Your task to perform on an android device: turn off sleep mode Image 0: 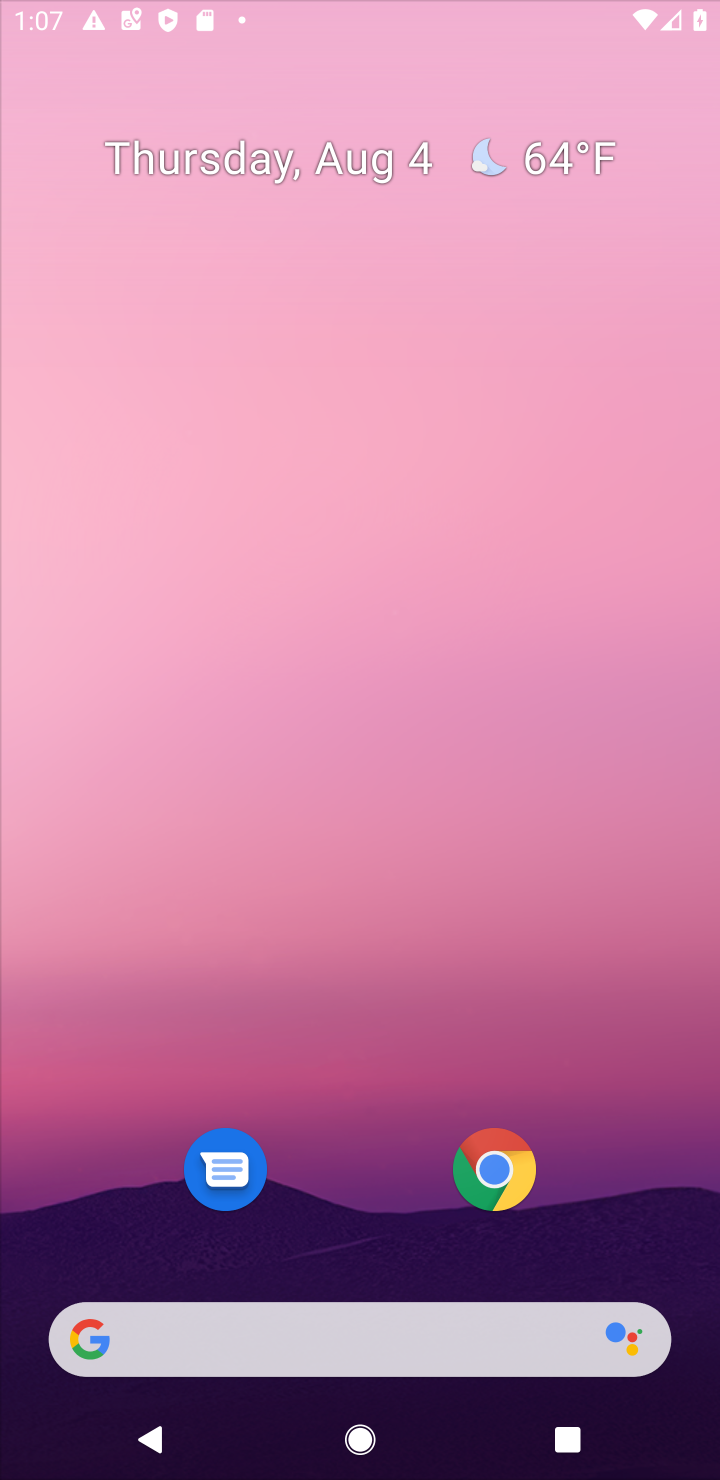
Step 0: press home button
Your task to perform on an android device: turn off sleep mode Image 1: 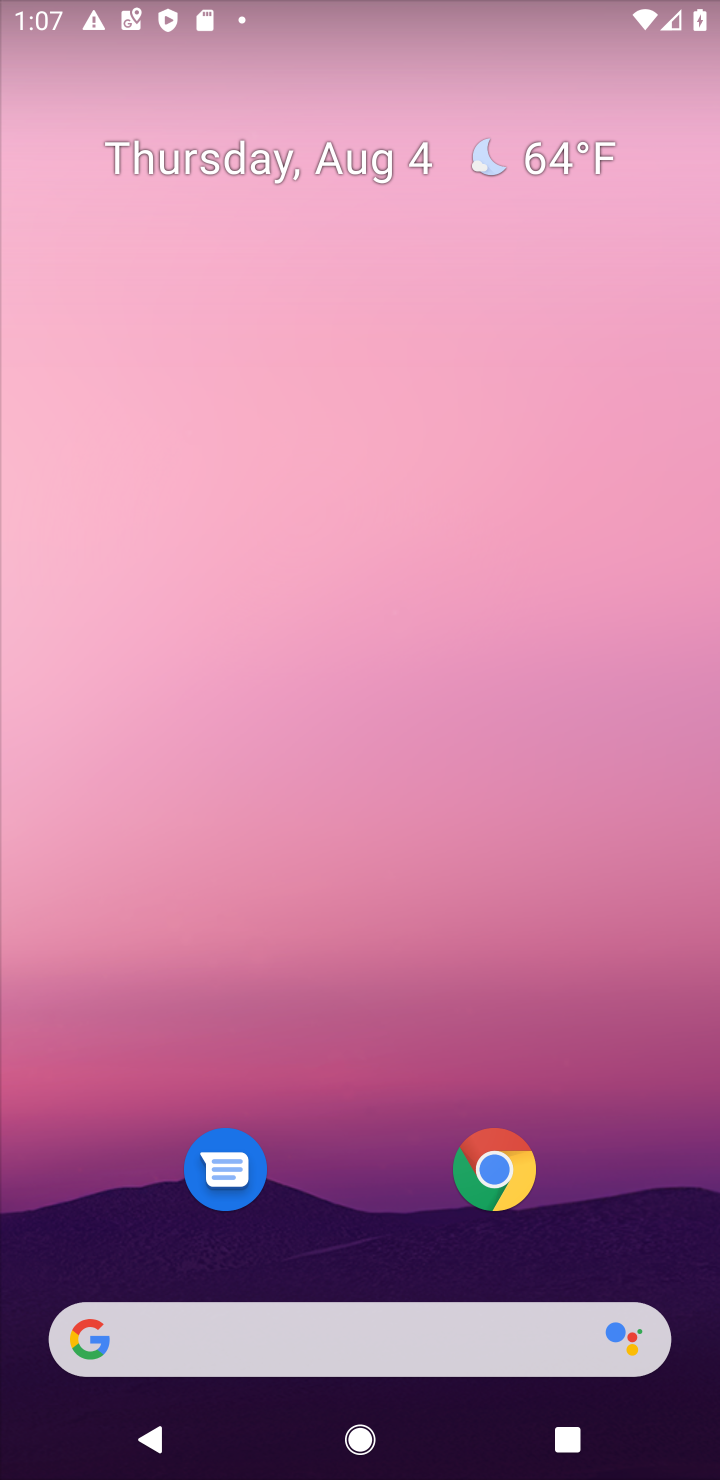
Step 1: drag from (289, 1217) to (291, 15)
Your task to perform on an android device: turn off sleep mode Image 2: 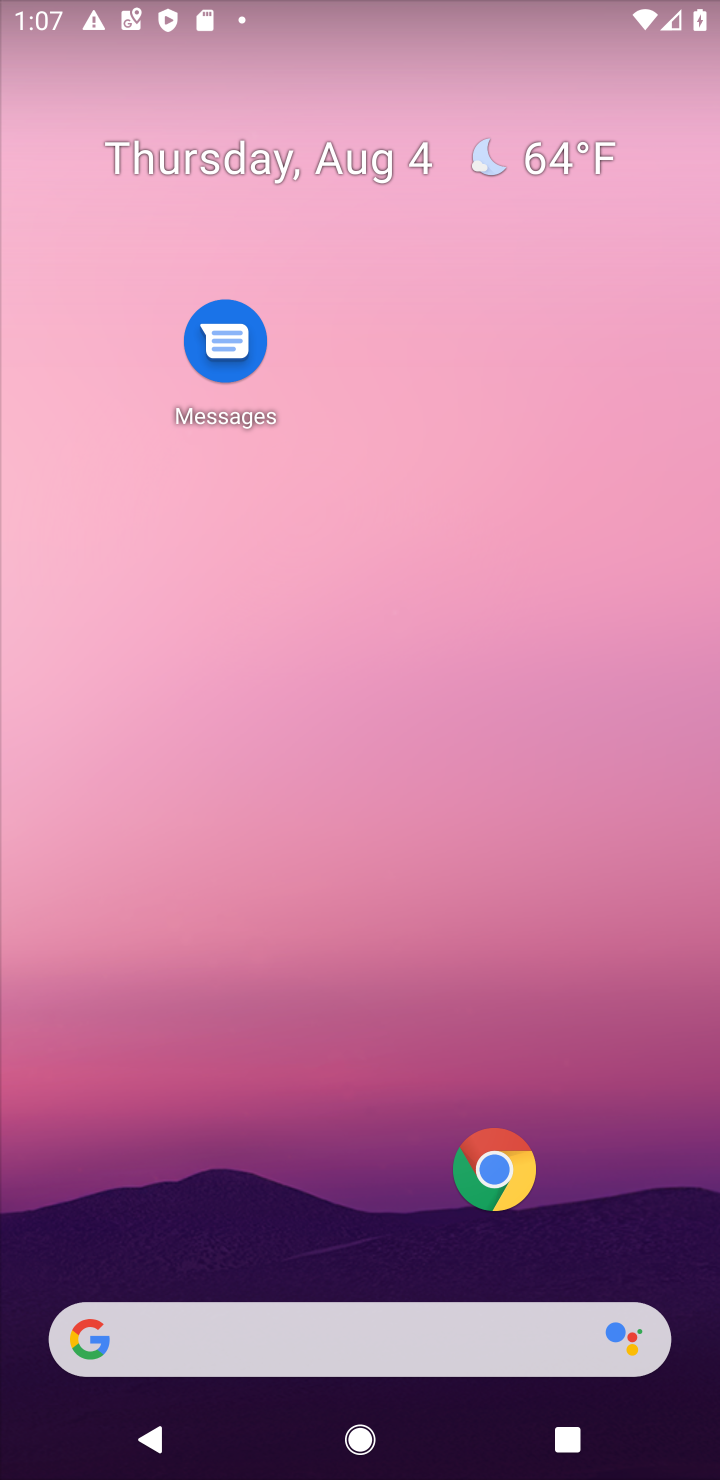
Step 2: drag from (348, 1166) to (337, 219)
Your task to perform on an android device: turn off sleep mode Image 3: 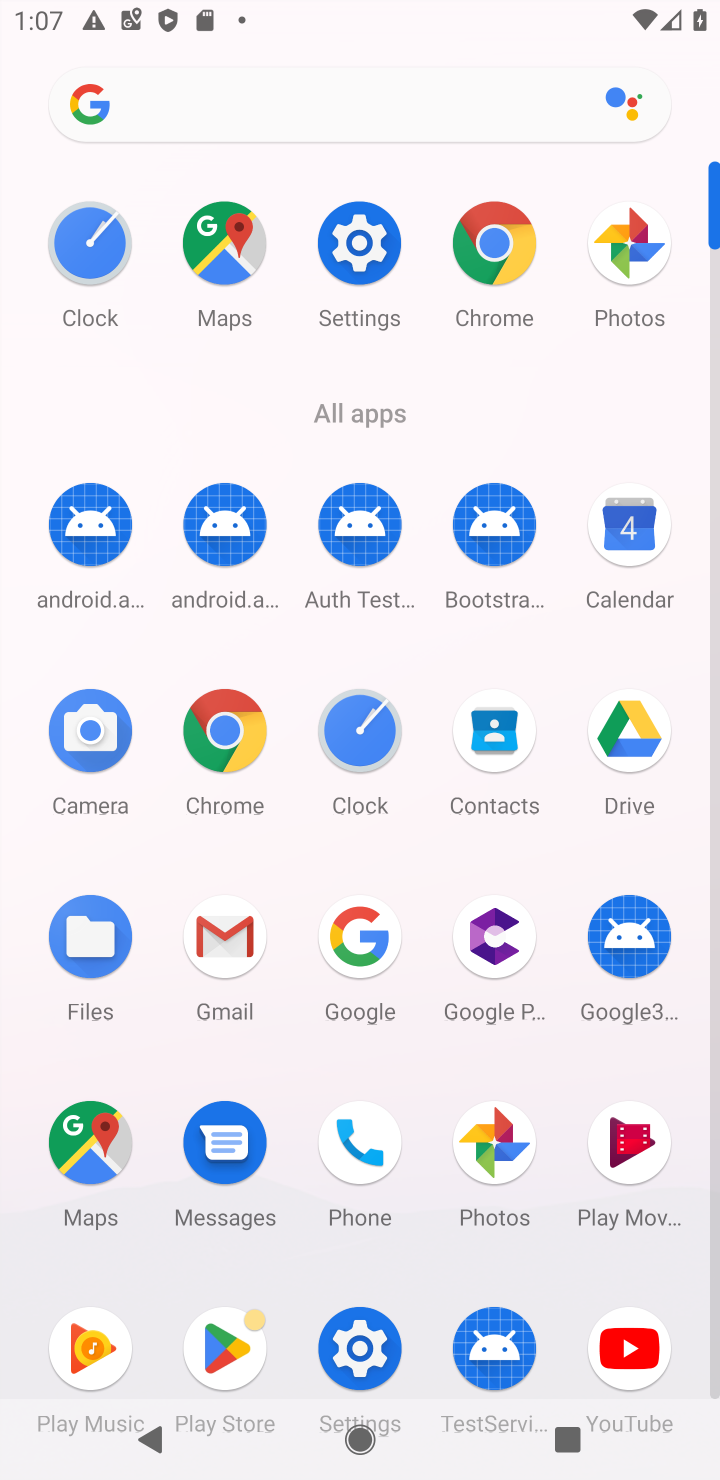
Step 3: click (351, 1348)
Your task to perform on an android device: turn off sleep mode Image 4: 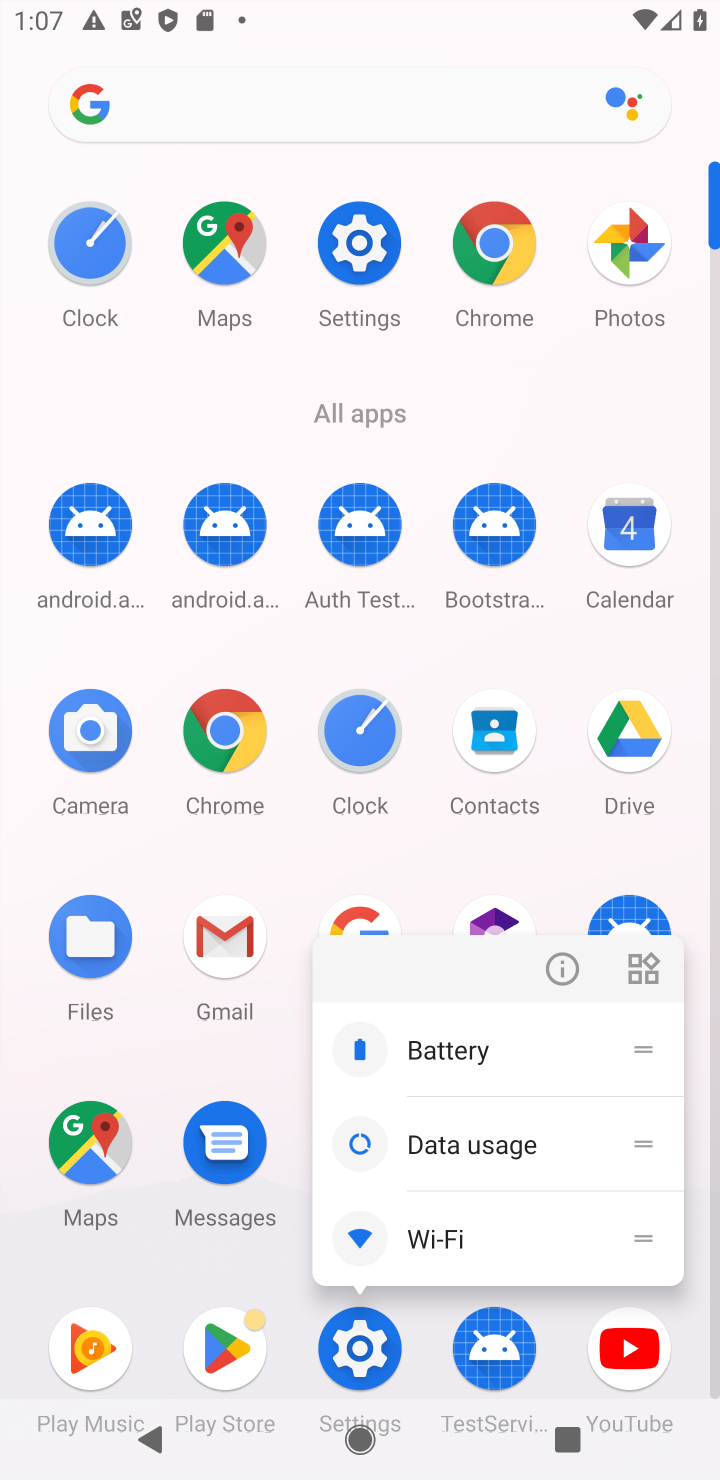
Step 4: click (363, 1353)
Your task to perform on an android device: turn off sleep mode Image 5: 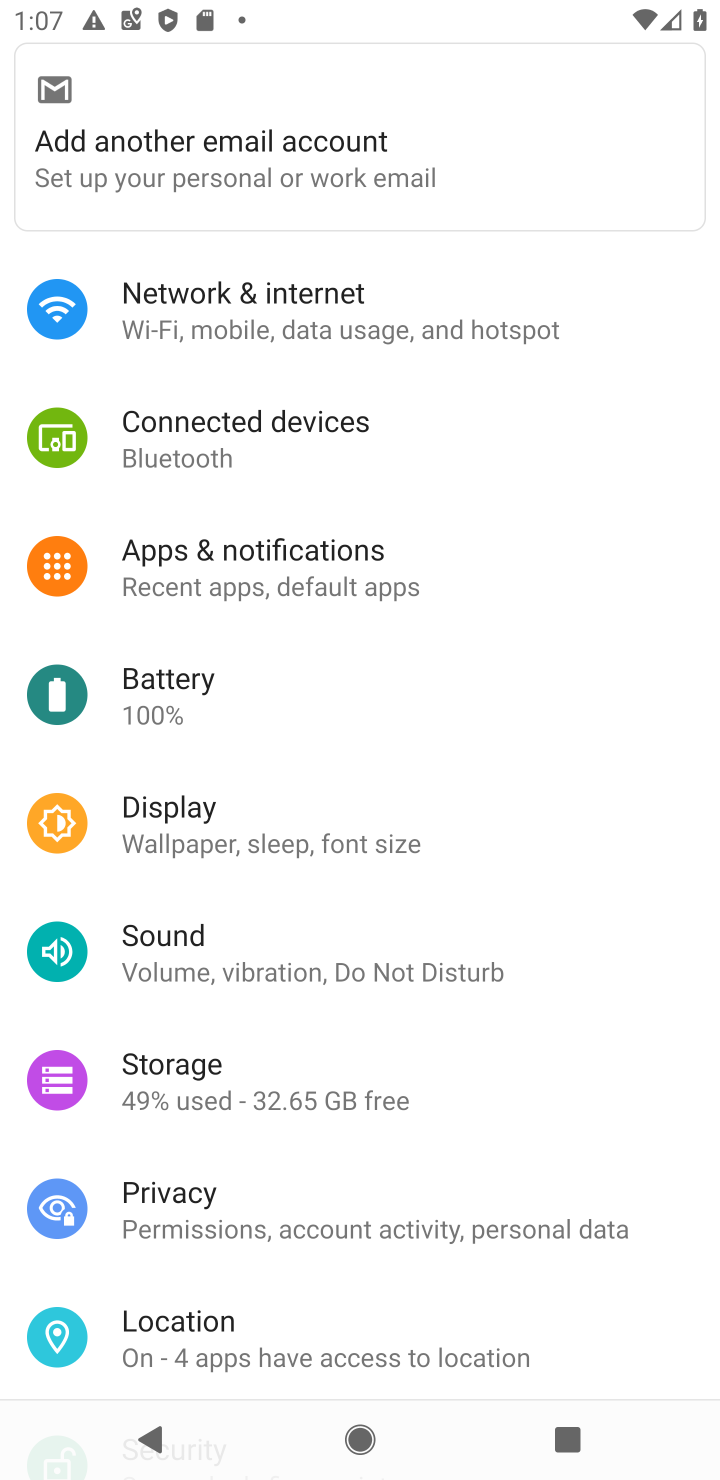
Step 5: drag from (266, 470) to (265, 1051)
Your task to perform on an android device: turn off sleep mode Image 6: 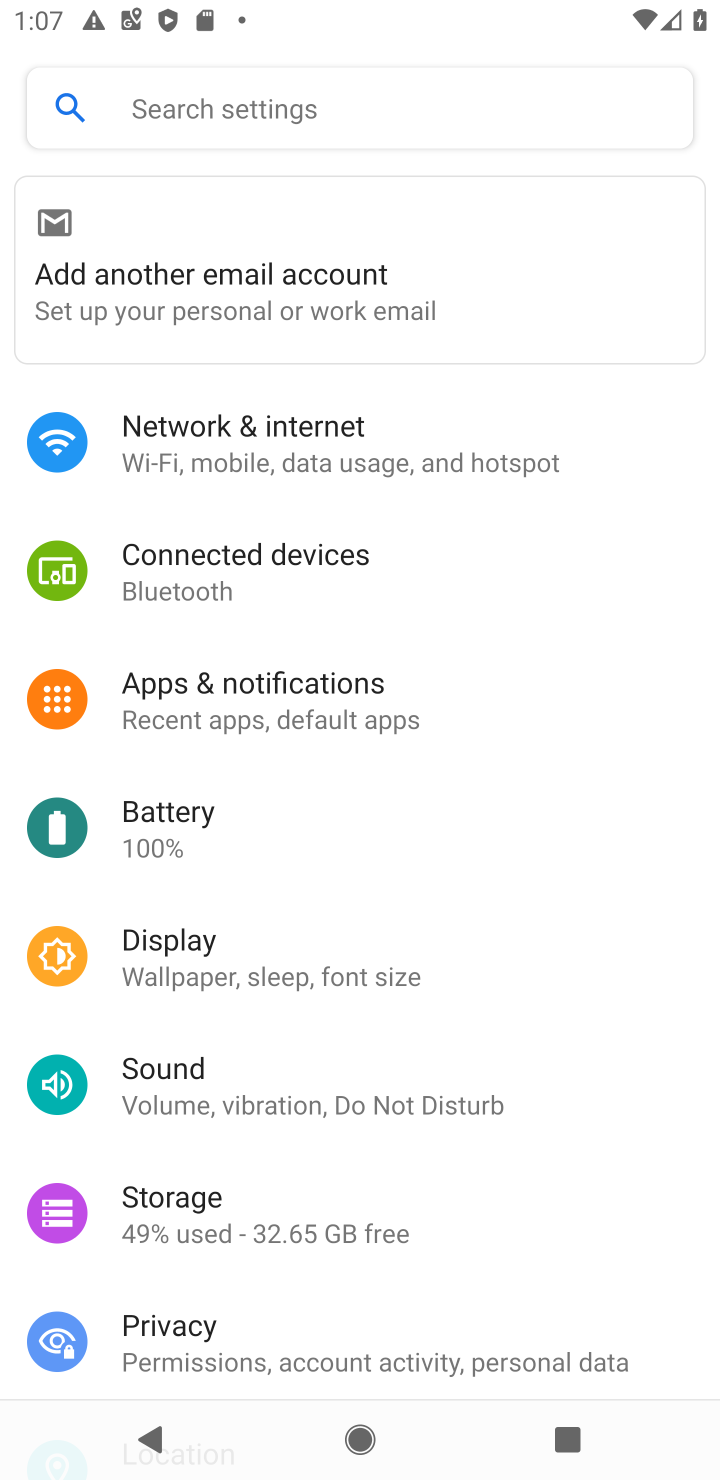
Step 6: click (306, 101)
Your task to perform on an android device: turn off sleep mode Image 7: 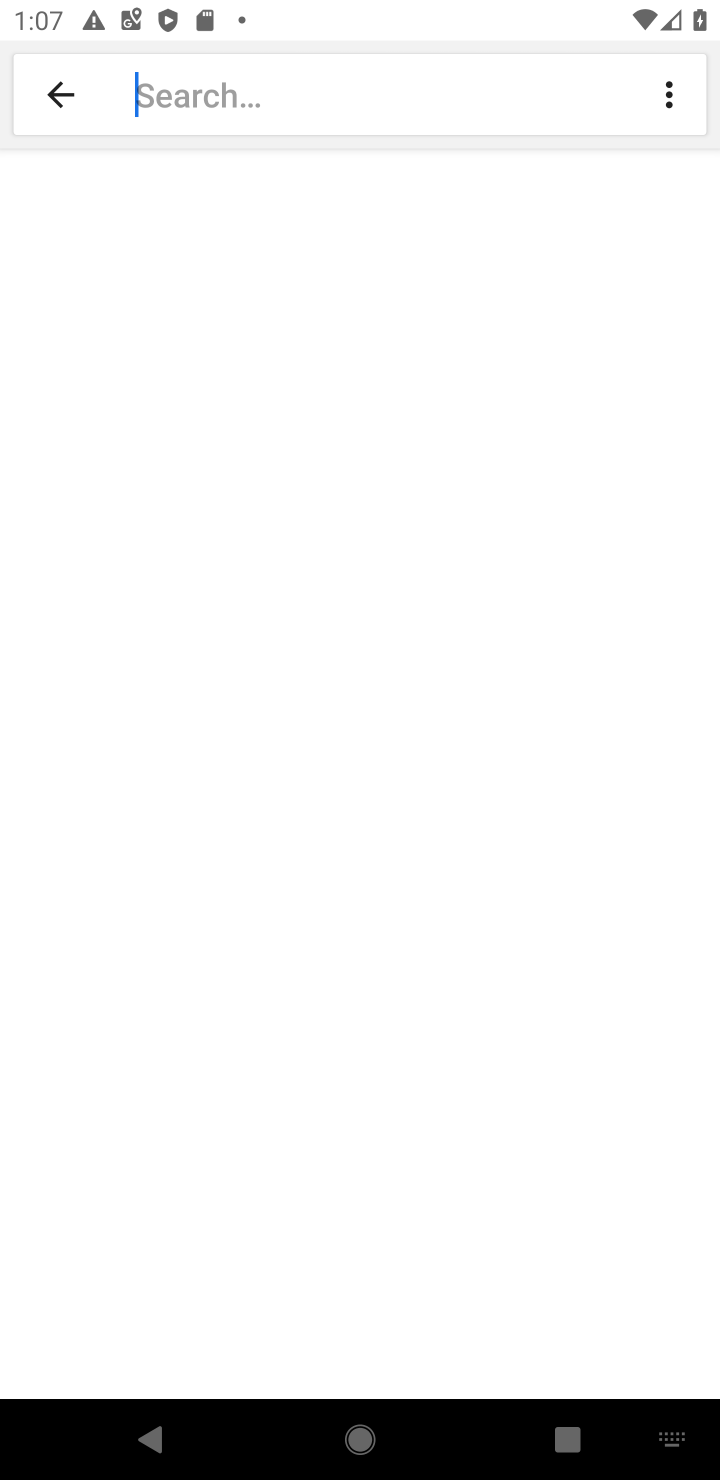
Step 7: type "sleep mode"
Your task to perform on an android device: turn off sleep mode Image 8: 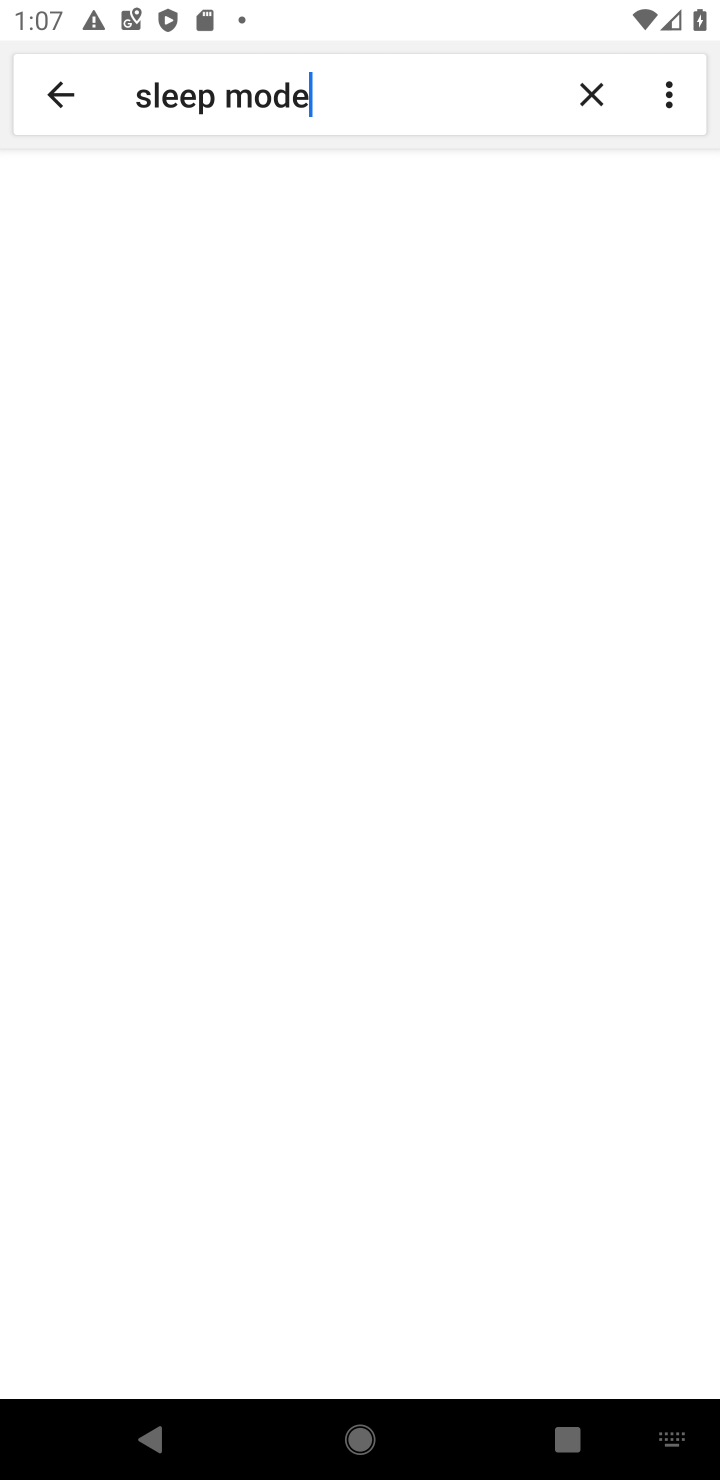
Step 8: click (296, 227)
Your task to perform on an android device: turn off sleep mode Image 9: 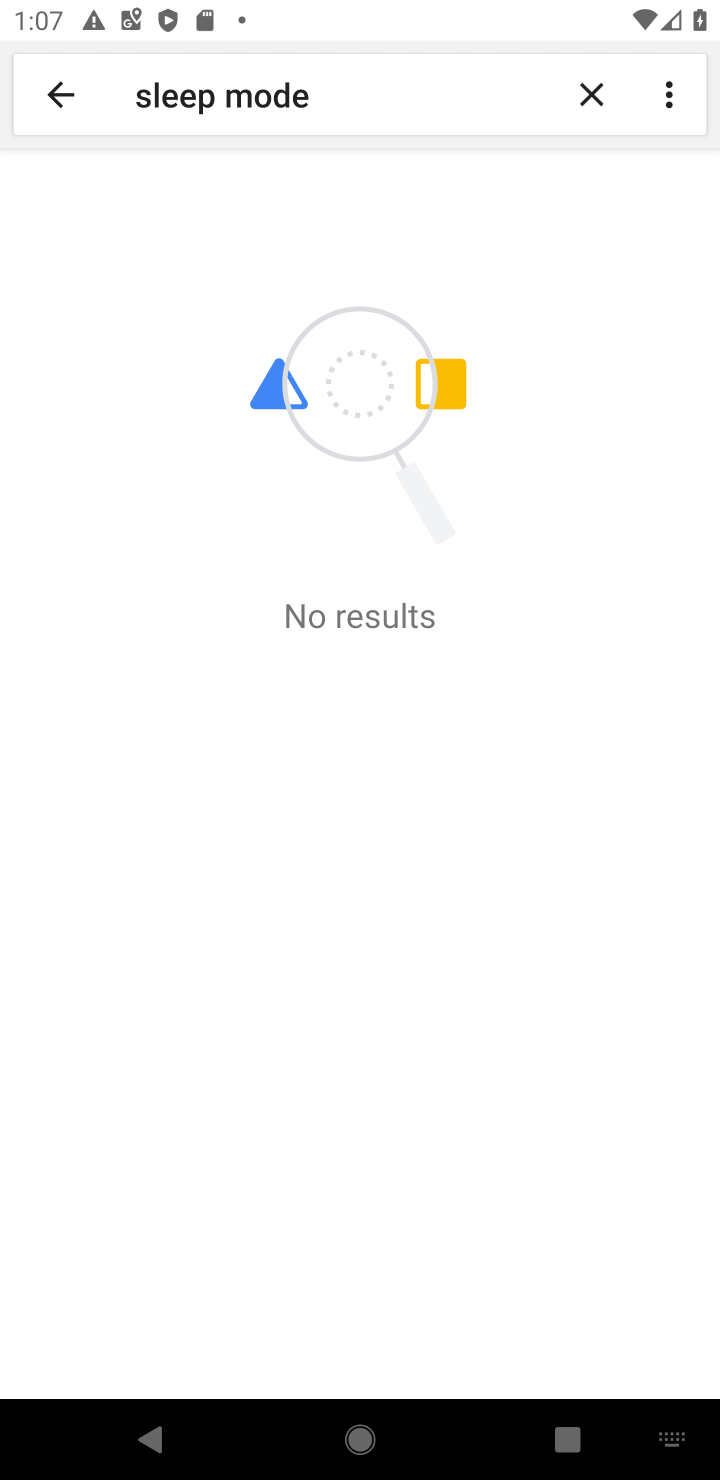
Step 9: task complete